Your task to perform on an android device: Open ESPN.com Image 0: 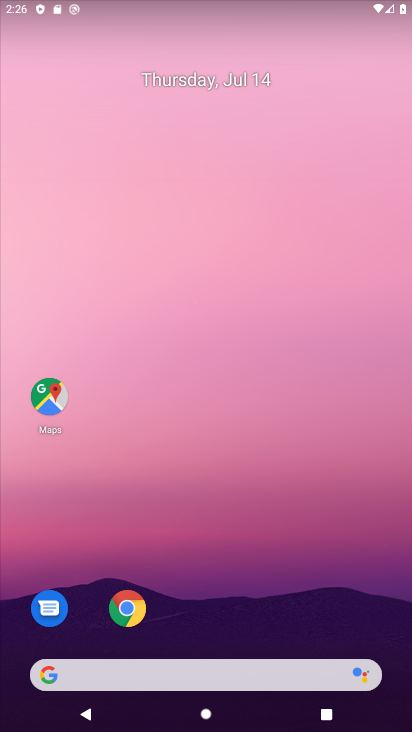
Step 0: drag from (186, 578) to (265, 243)
Your task to perform on an android device: Open ESPN.com Image 1: 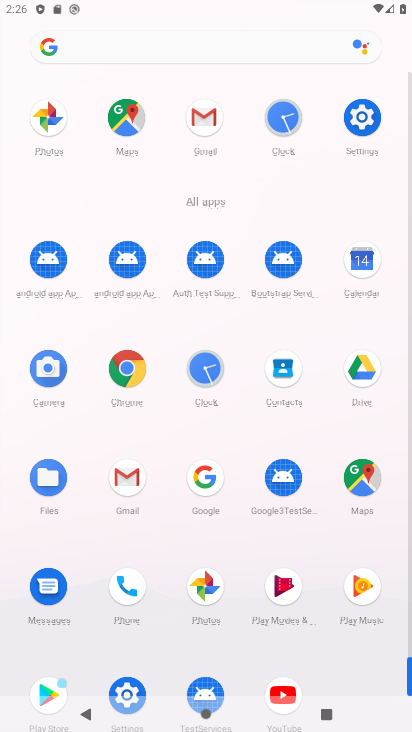
Step 1: click (232, 50)
Your task to perform on an android device: Open ESPN.com Image 2: 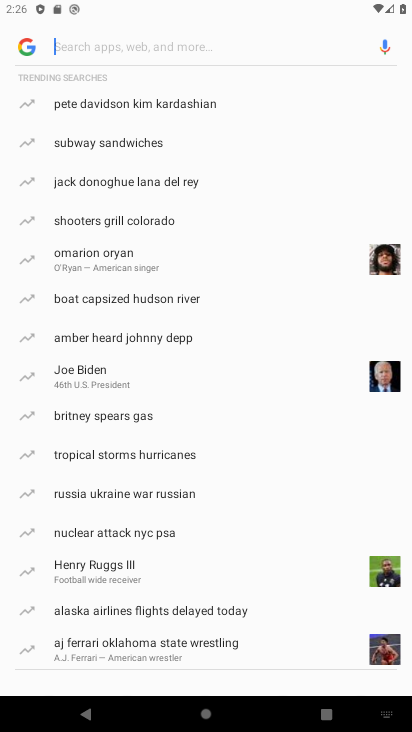
Step 2: type "espn"
Your task to perform on an android device: Open ESPN.com Image 3: 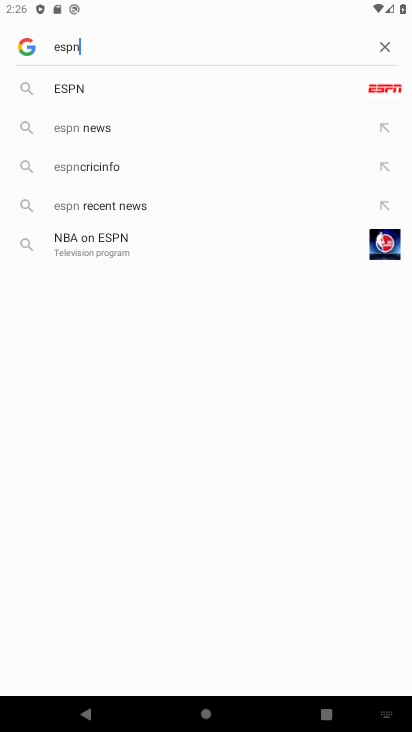
Step 3: click (103, 83)
Your task to perform on an android device: Open ESPN.com Image 4: 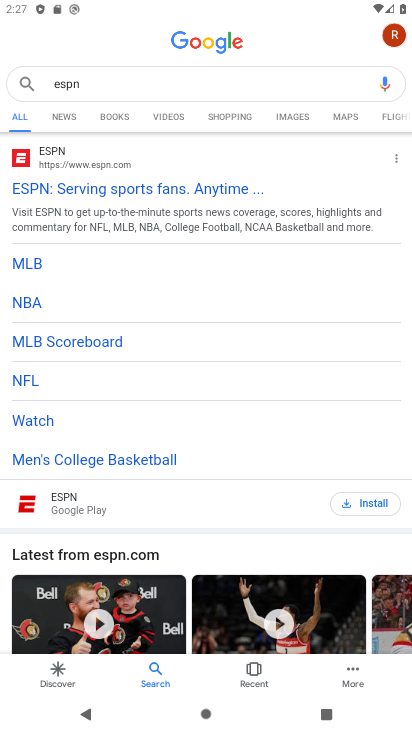
Step 4: click (91, 191)
Your task to perform on an android device: Open ESPN.com Image 5: 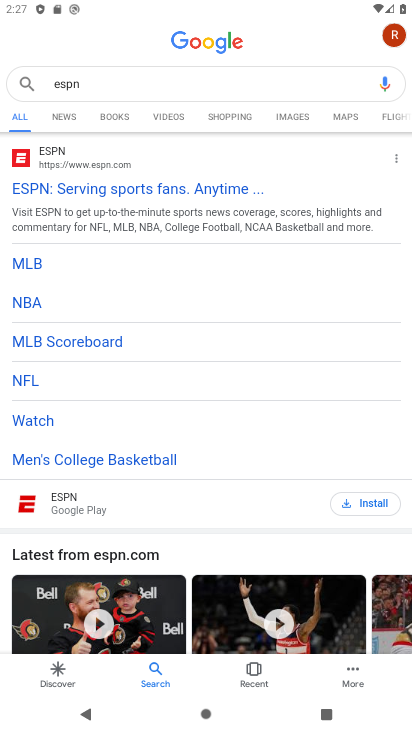
Step 5: task complete